Your task to perform on an android device: allow notifications from all sites in the chrome app Image 0: 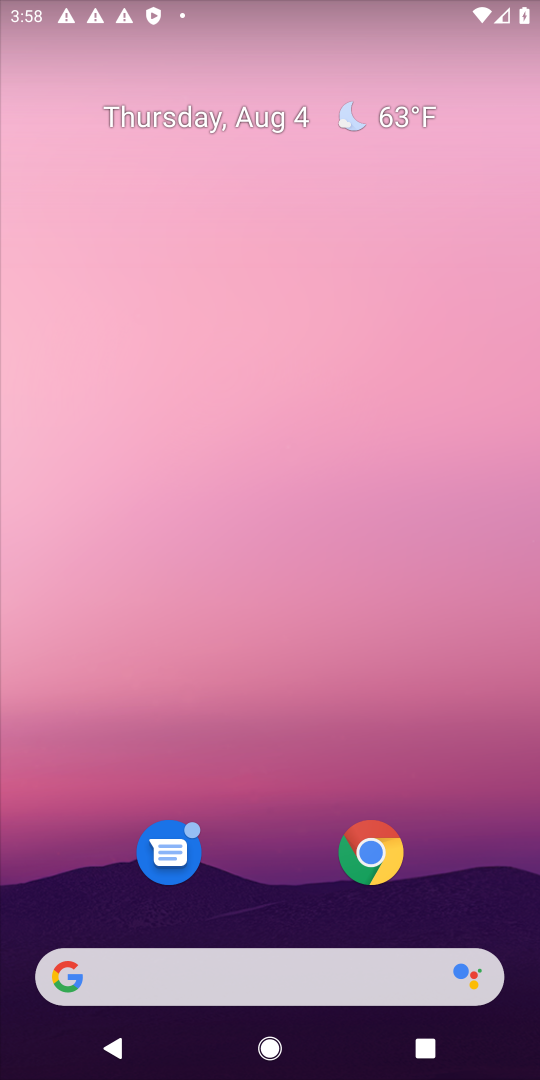
Step 0: drag from (275, 933) to (265, 122)
Your task to perform on an android device: allow notifications from all sites in the chrome app Image 1: 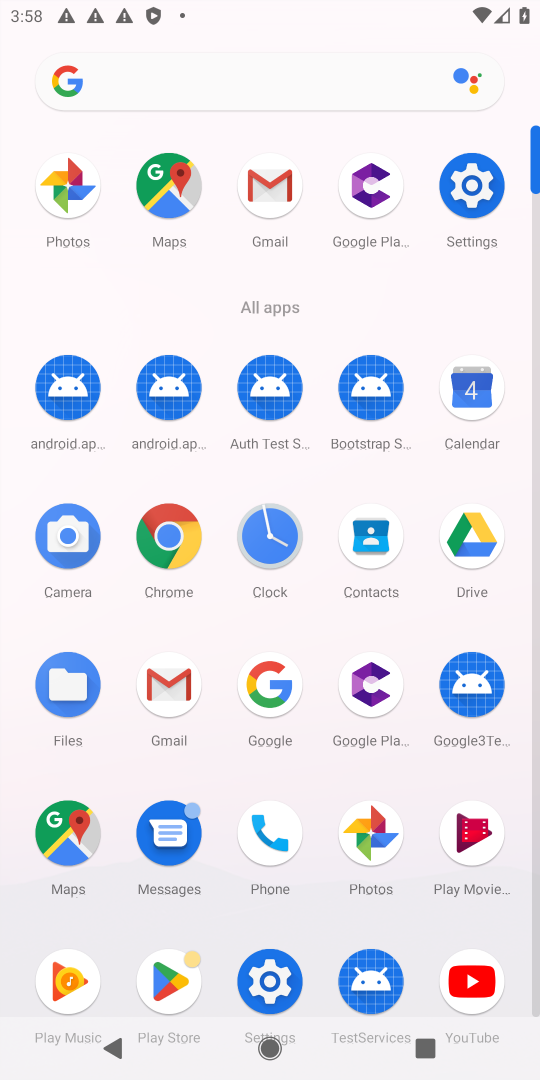
Step 1: click (153, 537)
Your task to perform on an android device: allow notifications from all sites in the chrome app Image 2: 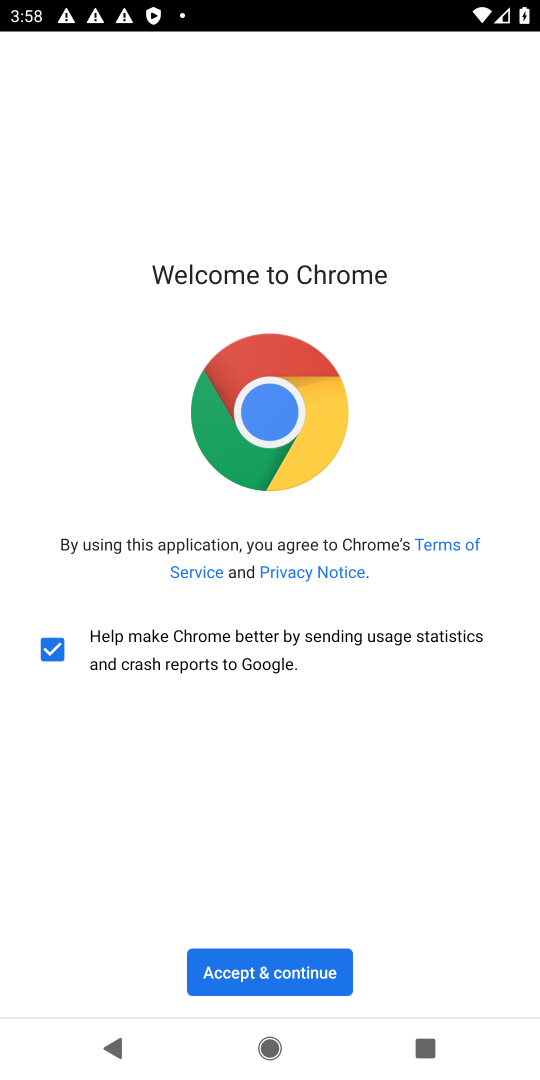
Step 2: click (295, 973)
Your task to perform on an android device: allow notifications from all sites in the chrome app Image 3: 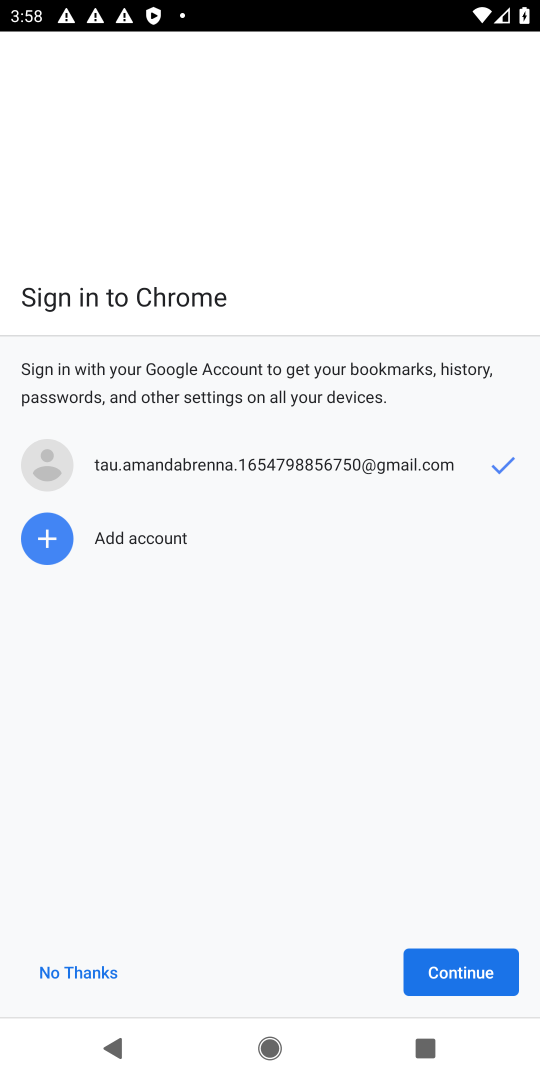
Step 3: click (449, 963)
Your task to perform on an android device: allow notifications from all sites in the chrome app Image 4: 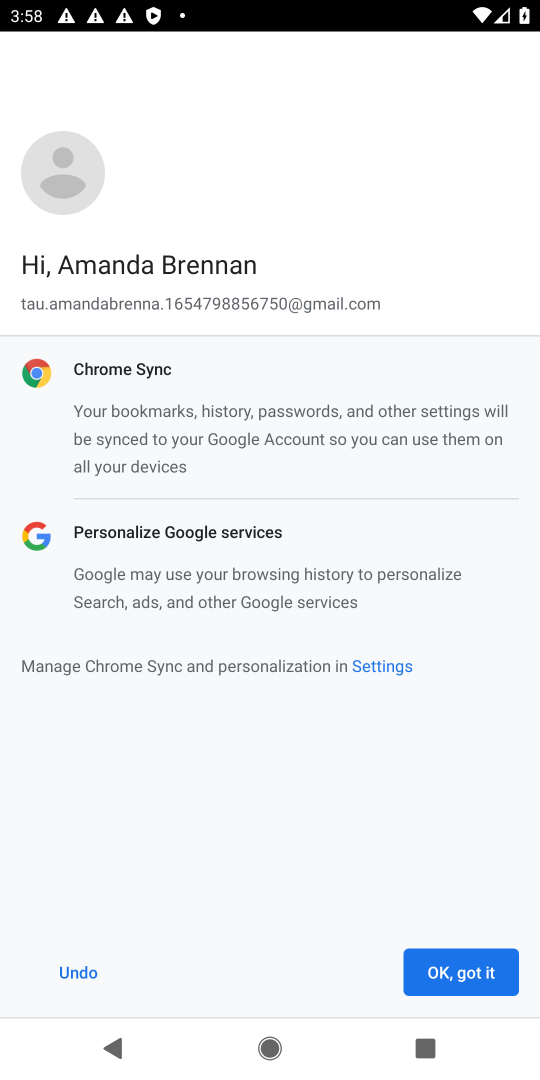
Step 4: click (453, 976)
Your task to perform on an android device: allow notifications from all sites in the chrome app Image 5: 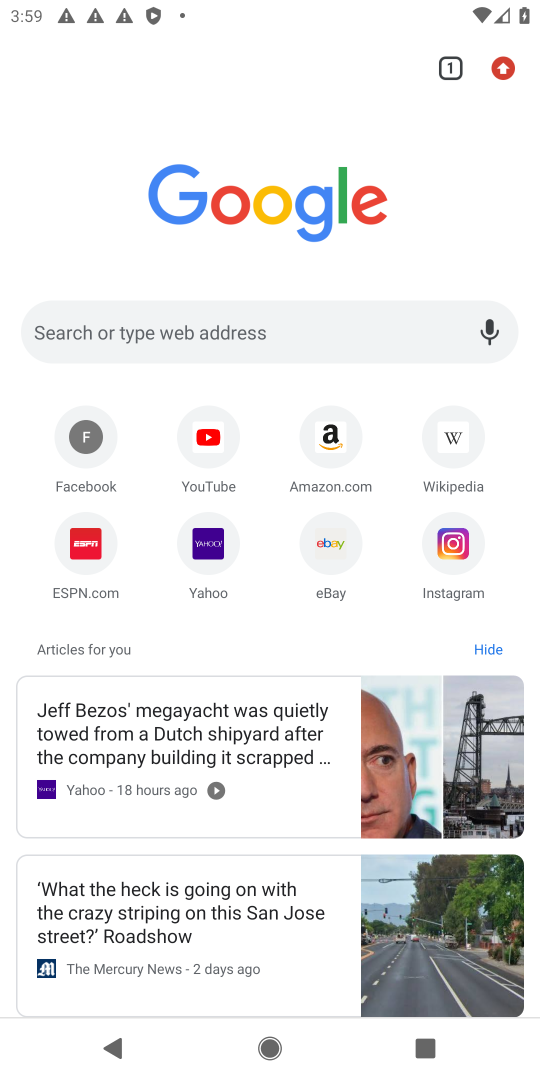
Step 5: click (504, 77)
Your task to perform on an android device: allow notifications from all sites in the chrome app Image 6: 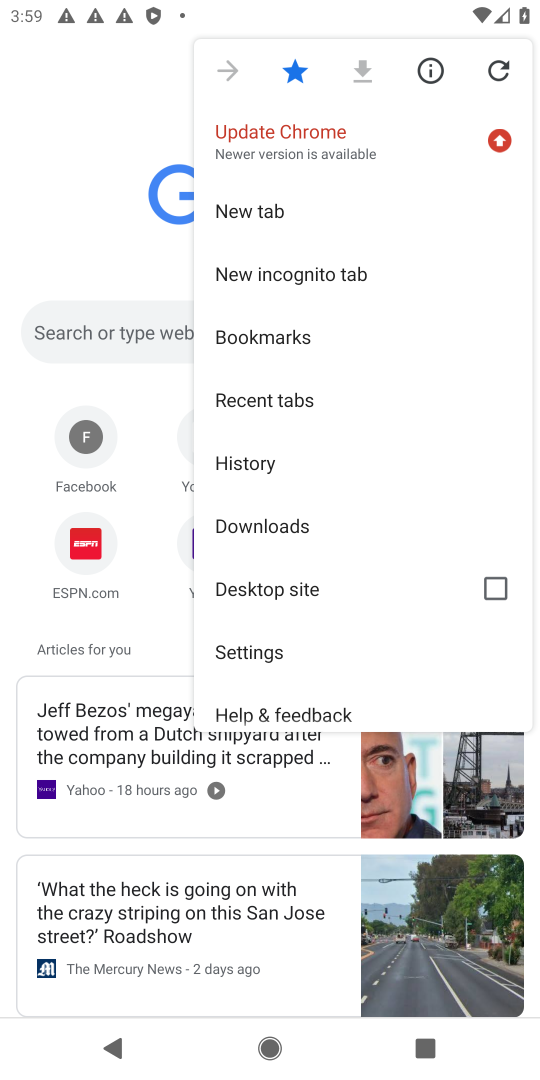
Step 6: click (261, 645)
Your task to perform on an android device: allow notifications from all sites in the chrome app Image 7: 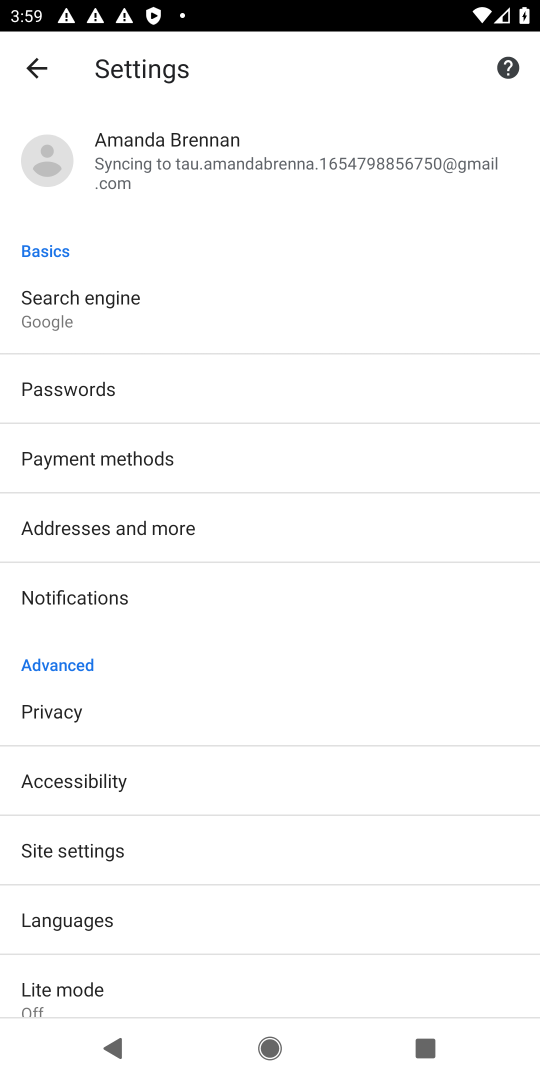
Step 7: click (70, 857)
Your task to perform on an android device: allow notifications from all sites in the chrome app Image 8: 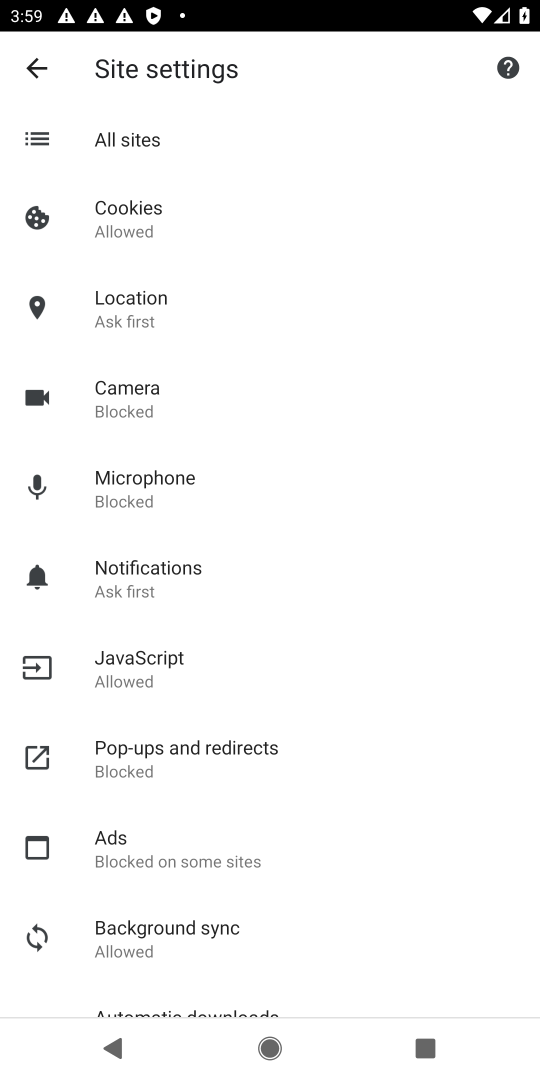
Step 8: click (148, 561)
Your task to perform on an android device: allow notifications from all sites in the chrome app Image 9: 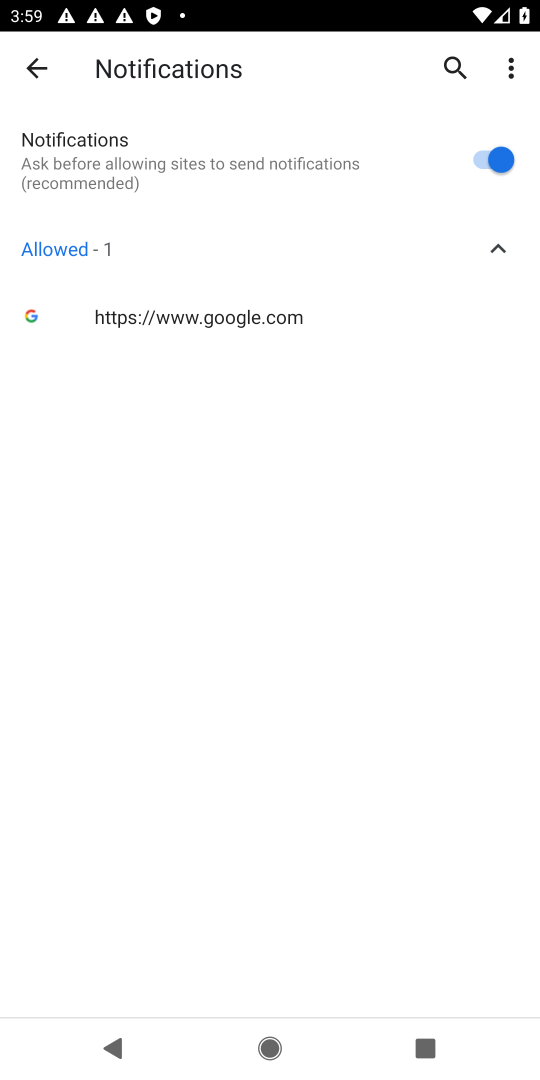
Step 9: task complete